Your task to perform on an android device: change keyboard looks Image 0: 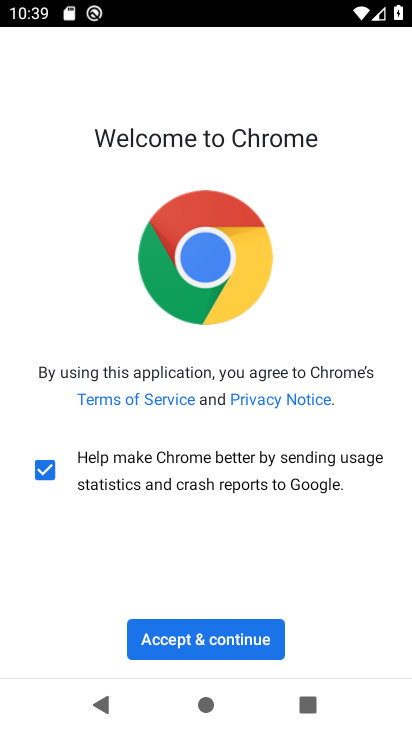
Step 0: press home button
Your task to perform on an android device: change keyboard looks Image 1: 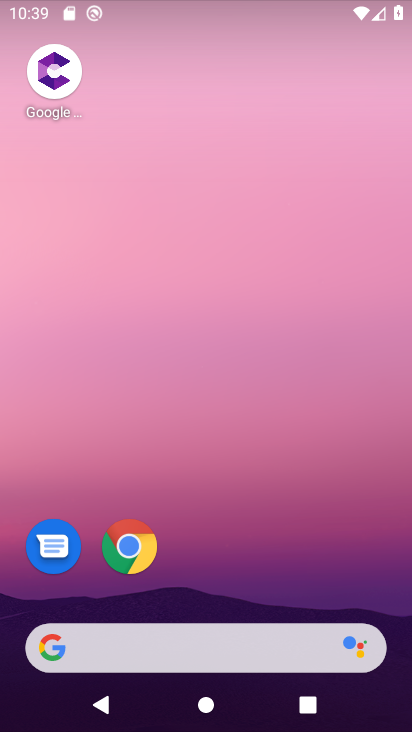
Step 1: drag from (201, 666) to (212, 135)
Your task to perform on an android device: change keyboard looks Image 2: 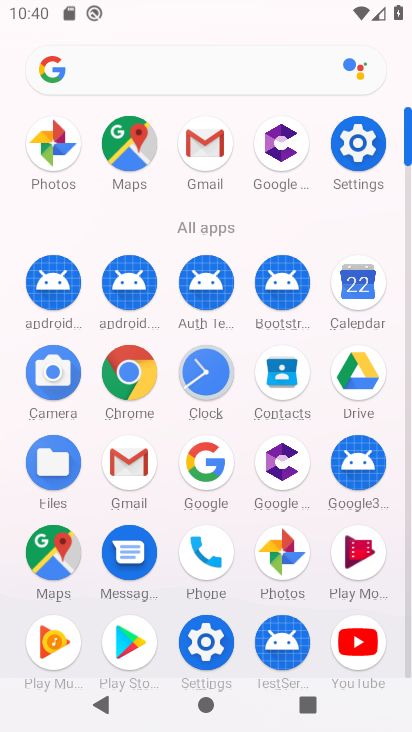
Step 2: click (371, 157)
Your task to perform on an android device: change keyboard looks Image 3: 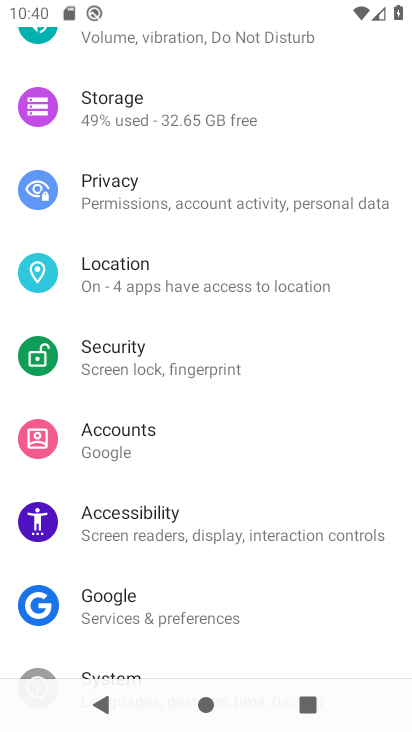
Step 3: drag from (210, 432) to (256, 98)
Your task to perform on an android device: change keyboard looks Image 4: 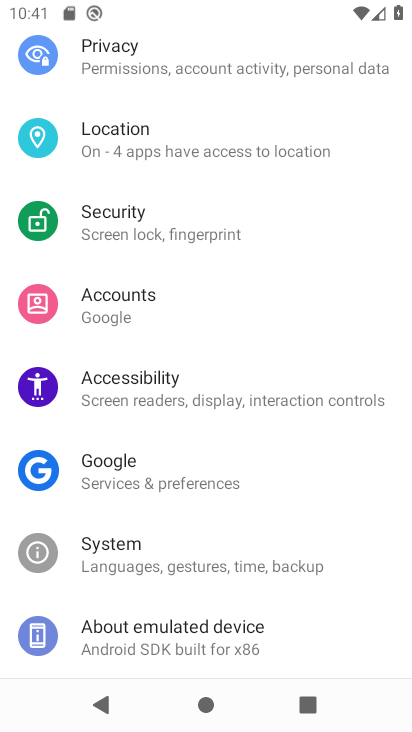
Step 4: drag from (211, 545) to (238, 228)
Your task to perform on an android device: change keyboard looks Image 5: 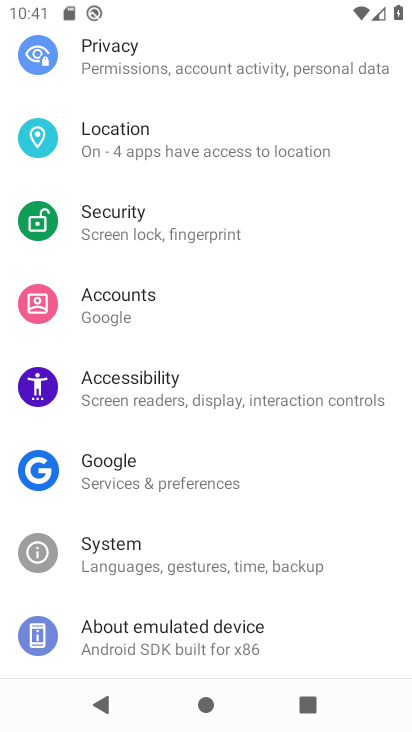
Step 5: click (214, 553)
Your task to perform on an android device: change keyboard looks Image 6: 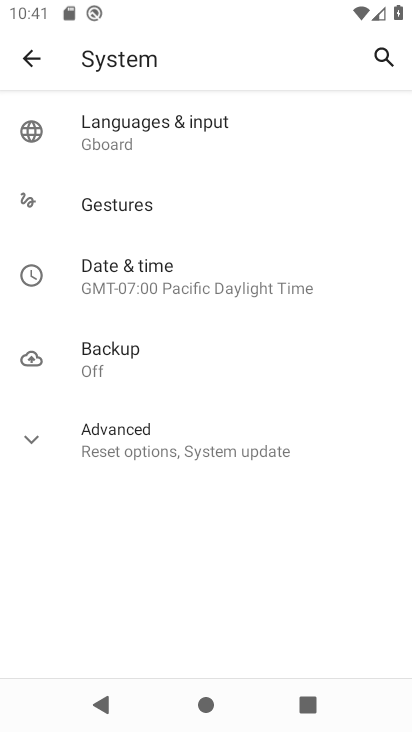
Step 6: click (174, 153)
Your task to perform on an android device: change keyboard looks Image 7: 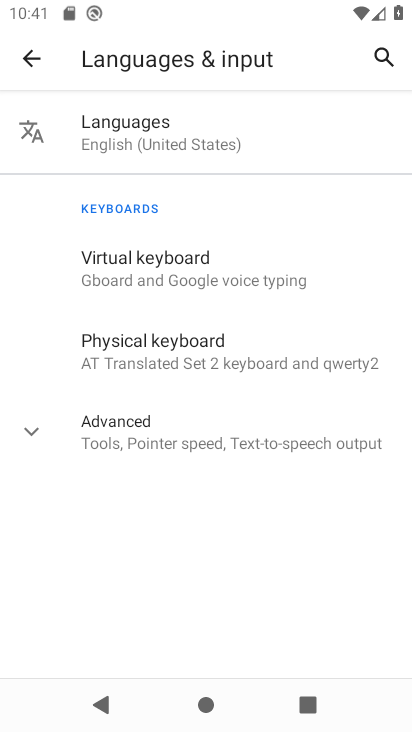
Step 7: click (188, 277)
Your task to perform on an android device: change keyboard looks Image 8: 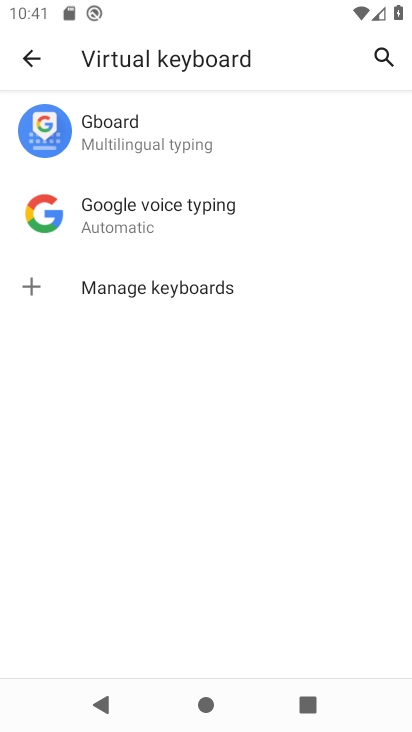
Step 8: click (217, 130)
Your task to perform on an android device: change keyboard looks Image 9: 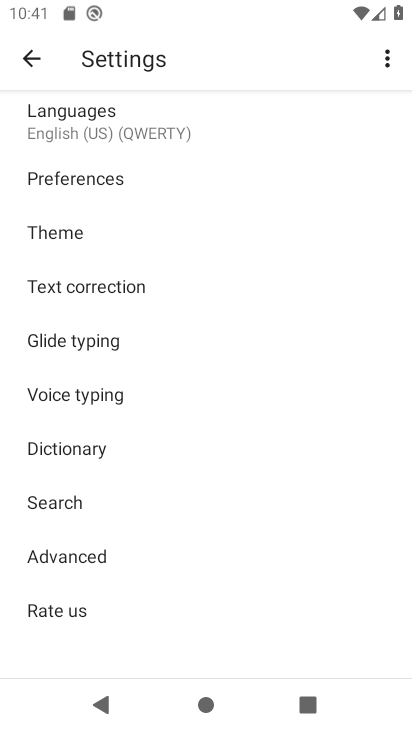
Step 9: click (77, 228)
Your task to perform on an android device: change keyboard looks Image 10: 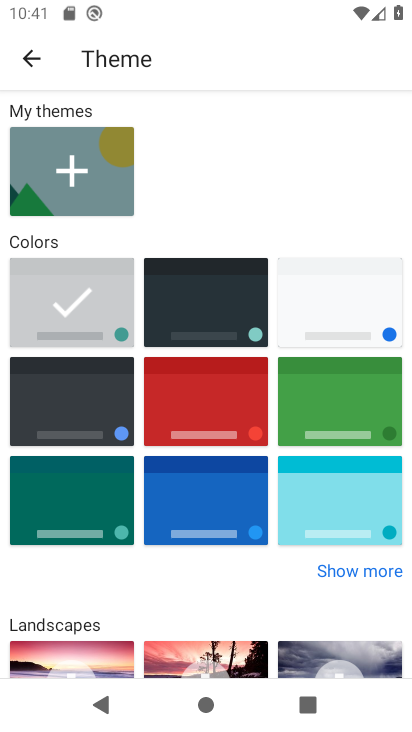
Step 10: click (98, 414)
Your task to perform on an android device: change keyboard looks Image 11: 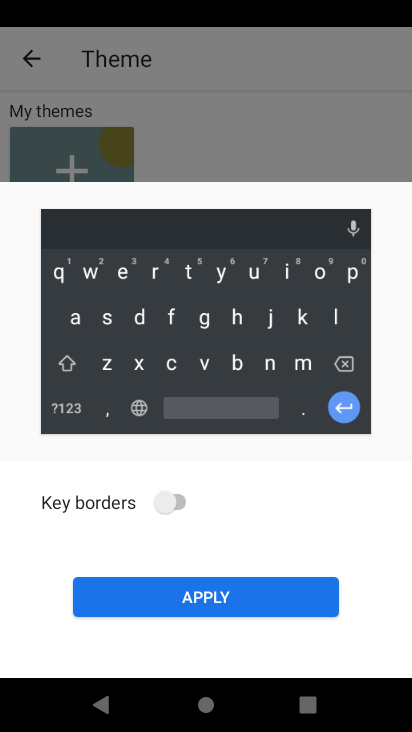
Step 11: click (288, 593)
Your task to perform on an android device: change keyboard looks Image 12: 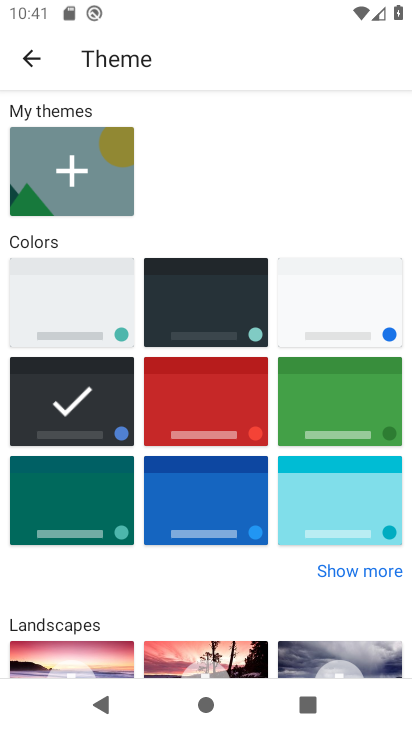
Step 12: task complete